Your task to perform on an android device: Open Youtube and go to "Your channel" Image 0: 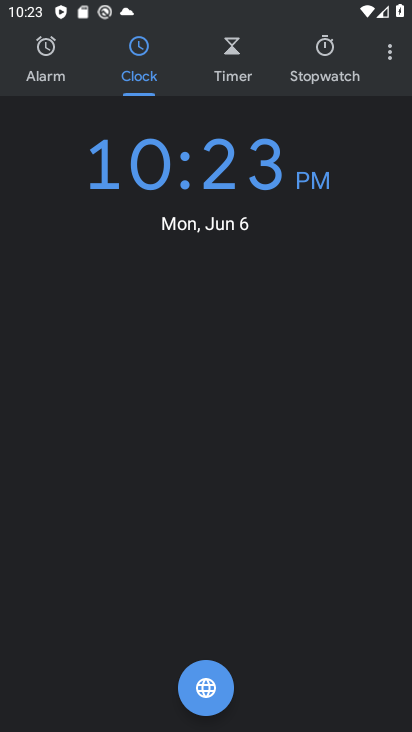
Step 0: press home button
Your task to perform on an android device: Open Youtube and go to "Your channel" Image 1: 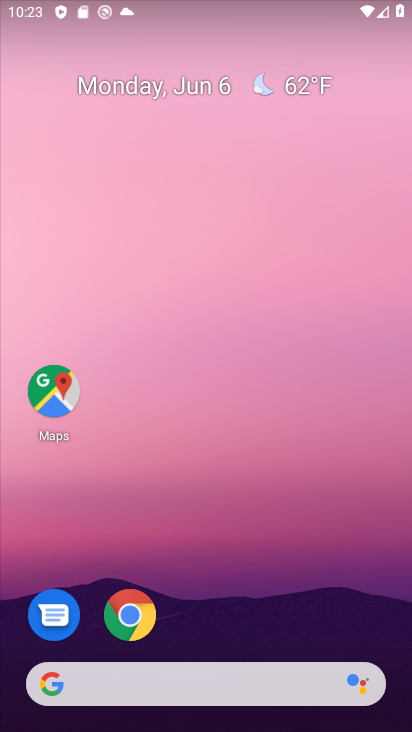
Step 1: drag from (221, 673) to (186, 104)
Your task to perform on an android device: Open Youtube and go to "Your channel" Image 2: 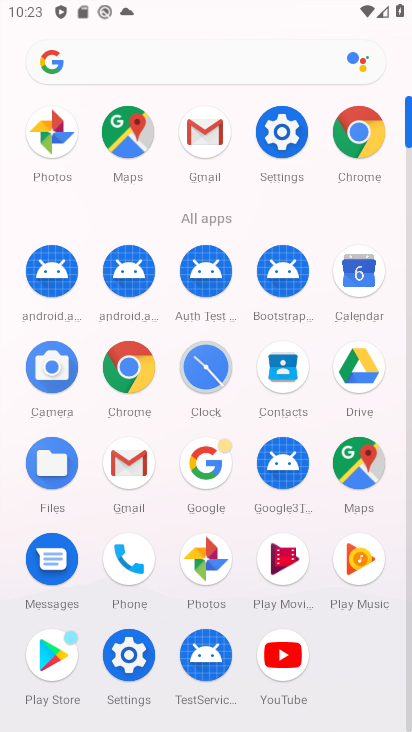
Step 2: click (295, 665)
Your task to perform on an android device: Open Youtube and go to "Your channel" Image 3: 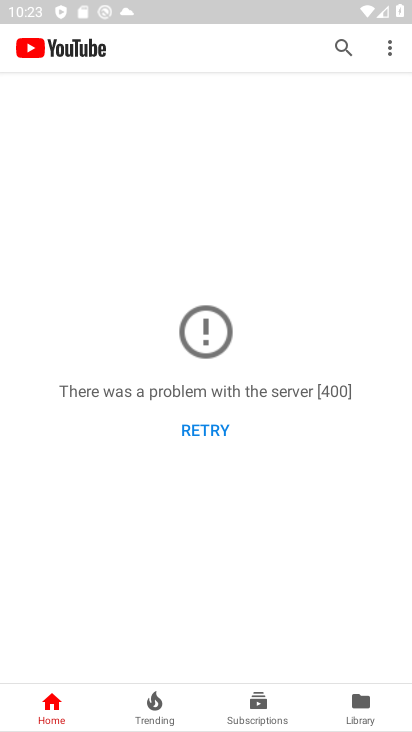
Step 3: click (356, 701)
Your task to perform on an android device: Open Youtube and go to "Your channel" Image 4: 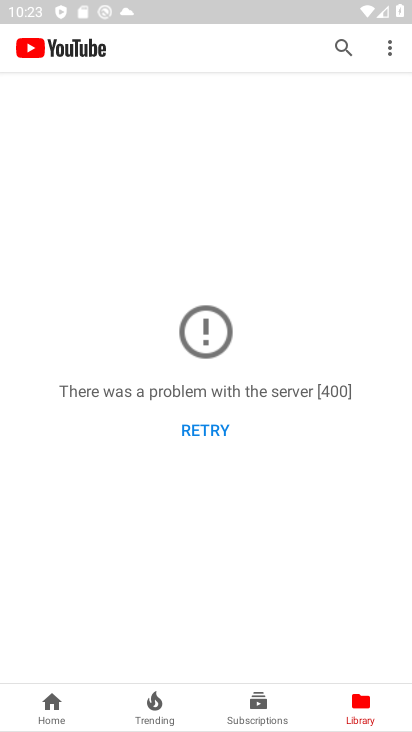
Step 4: task complete